Your task to perform on an android device: toggle notifications settings in the gmail app Image 0: 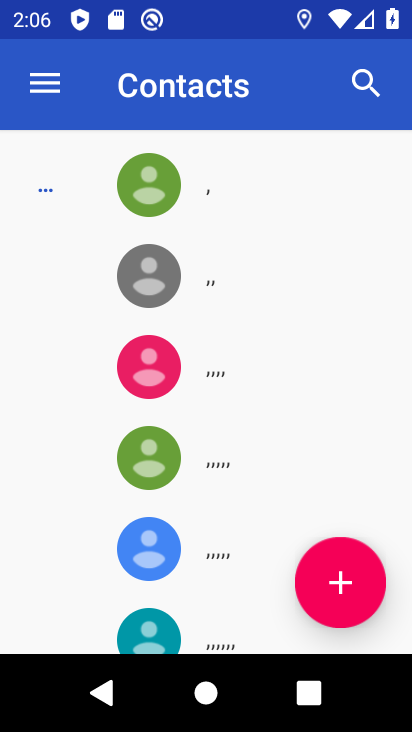
Step 0: press home button
Your task to perform on an android device: toggle notifications settings in the gmail app Image 1: 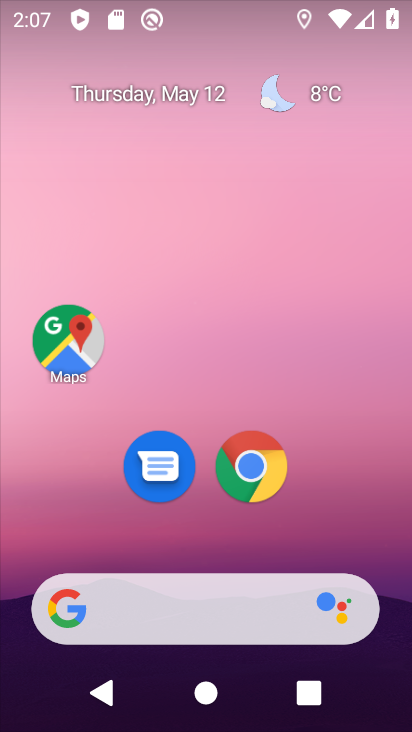
Step 1: drag from (338, 485) to (253, 121)
Your task to perform on an android device: toggle notifications settings in the gmail app Image 2: 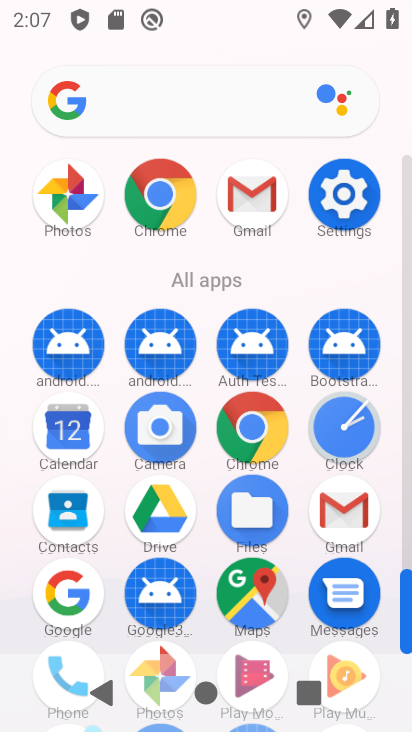
Step 2: click (264, 207)
Your task to perform on an android device: toggle notifications settings in the gmail app Image 3: 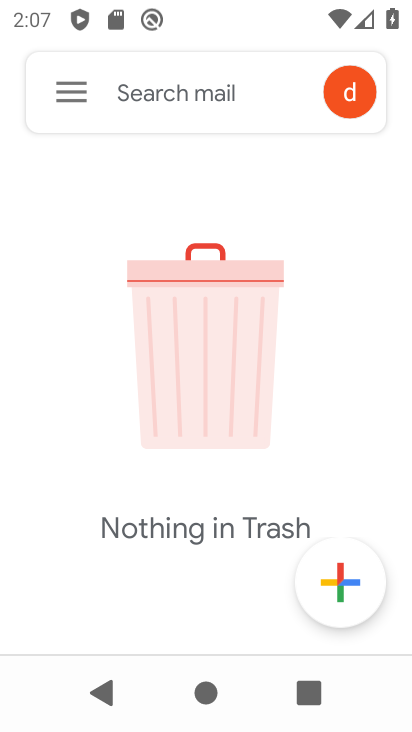
Step 3: click (67, 107)
Your task to perform on an android device: toggle notifications settings in the gmail app Image 4: 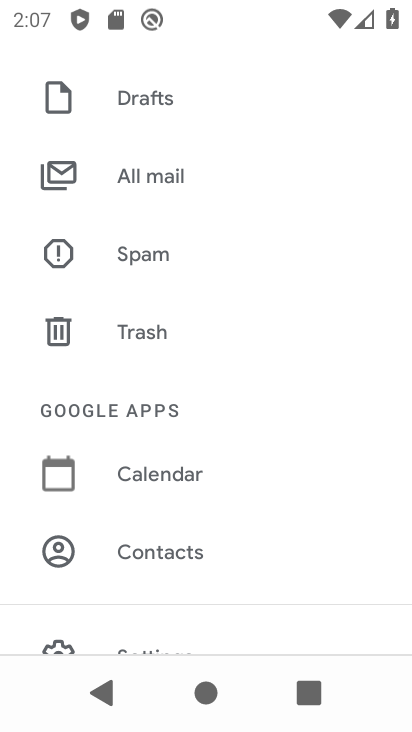
Step 4: drag from (125, 630) to (152, 414)
Your task to perform on an android device: toggle notifications settings in the gmail app Image 5: 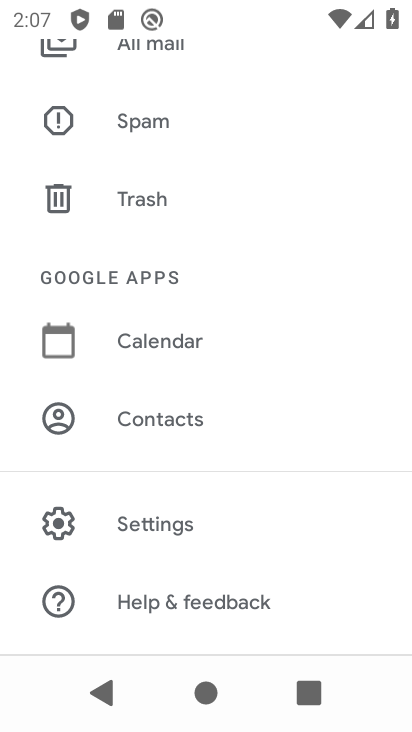
Step 5: click (121, 517)
Your task to perform on an android device: toggle notifications settings in the gmail app Image 6: 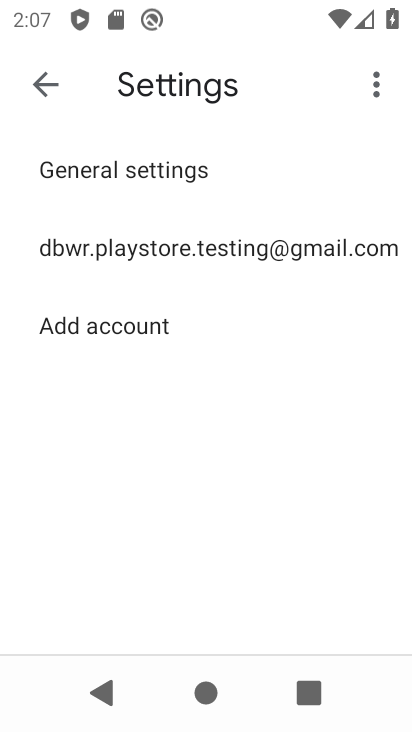
Step 6: click (144, 261)
Your task to perform on an android device: toggle notifications settings in the gmail app Image 7: 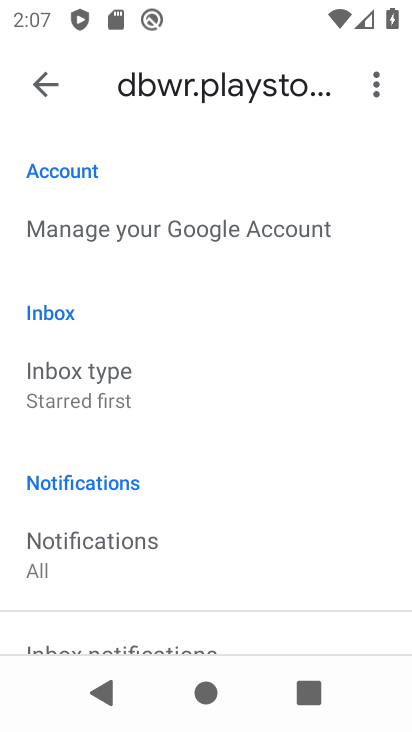
Step 7: drag from (112, 609) to (122, 319)
Your task to perform on an android device: toggle notifications settings in the gmail app Image 8: 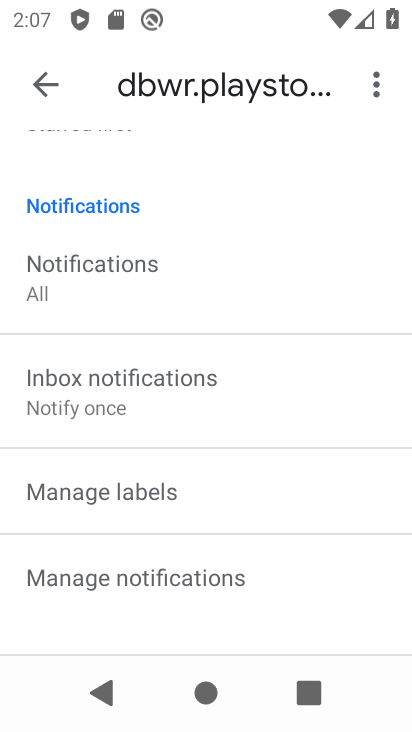
Step 8: click (130, 580)
Your task to perform on an android device: toggle notifications settings in the gmail app Image 9: 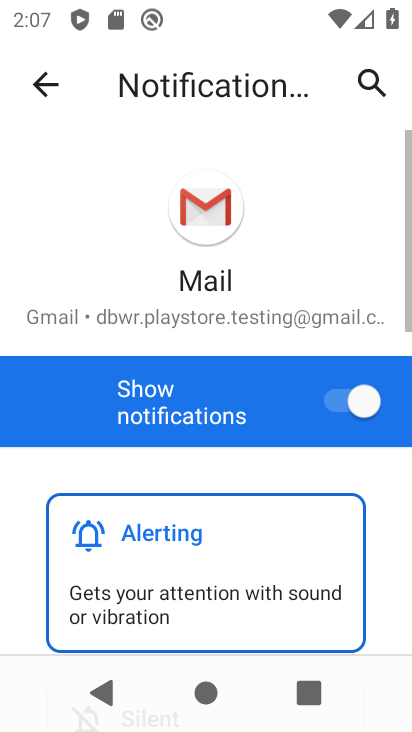
Step 9: click (342, 400)
Your task to perform on an android device: toggle notifications settings in the gmail app Image 10: 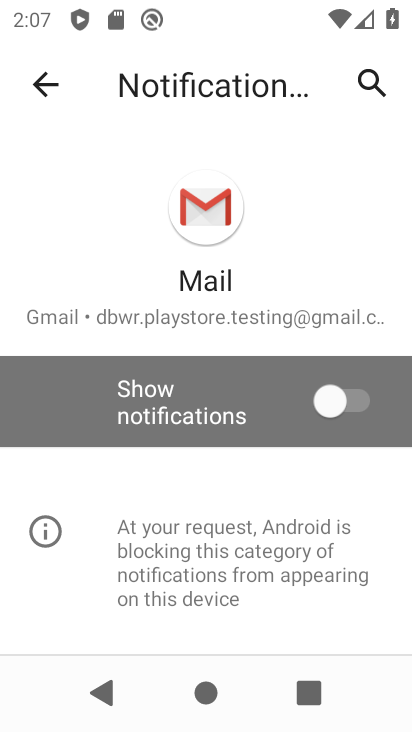
Step 10: task complete